Your task to perform on an android device: check android version Image 0: 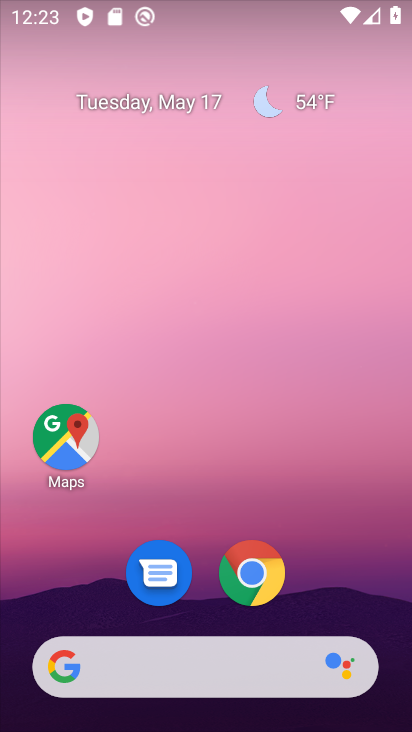
Step 0: press home button
Your task to perform on an android device: check android version Image 1: 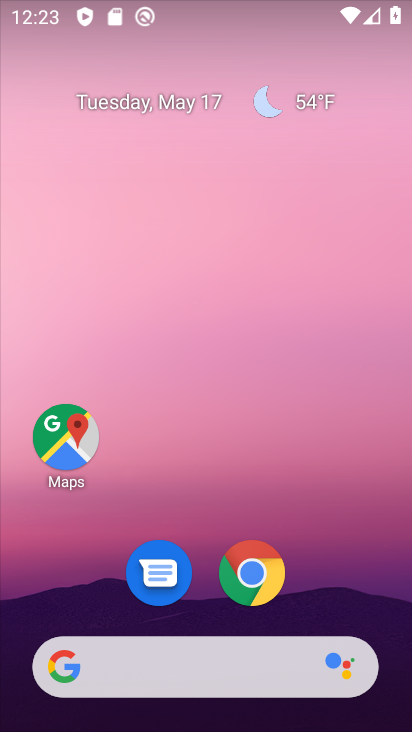
Step 1: drag from (206, 615) to (265, 1)
Your task to perform on an android device: check android version Image 2: 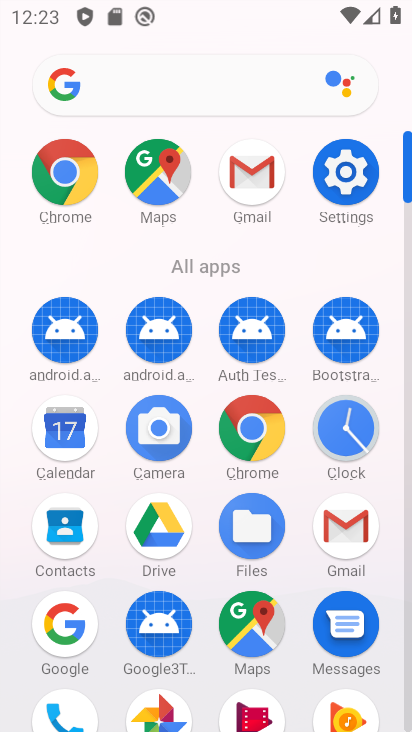
Step 2: click (344, 169)
Your task to perform on an android device: check android version Image 3: 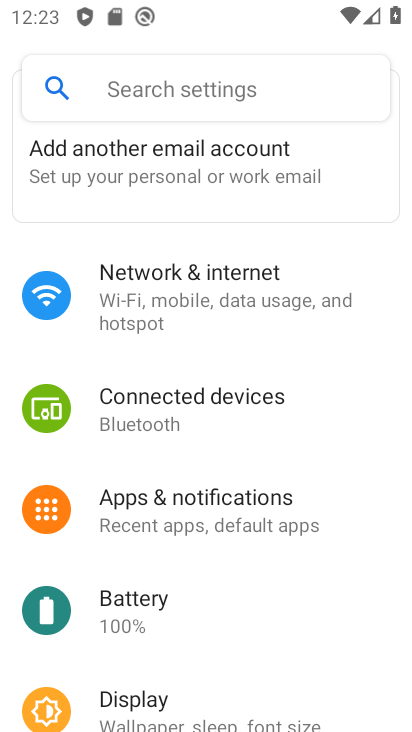
Step 3: drag from (209, 677) to (239, 83)
Your task to perform on an android device: check android version Image 4: 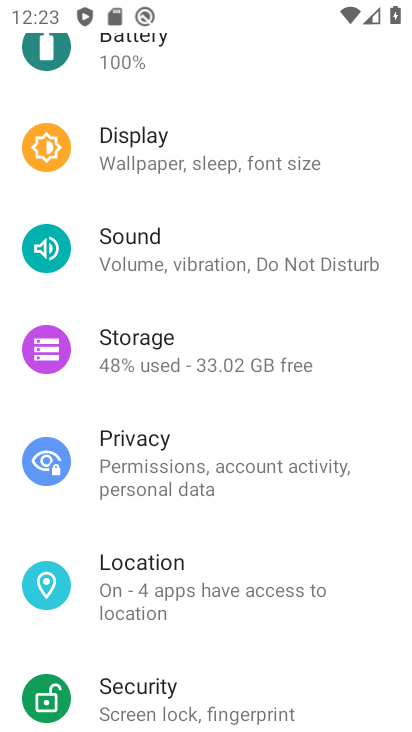
Step 4: drag from (210, 689) to (225, 68)
Your task to perform on an android device: check android version Image 5: 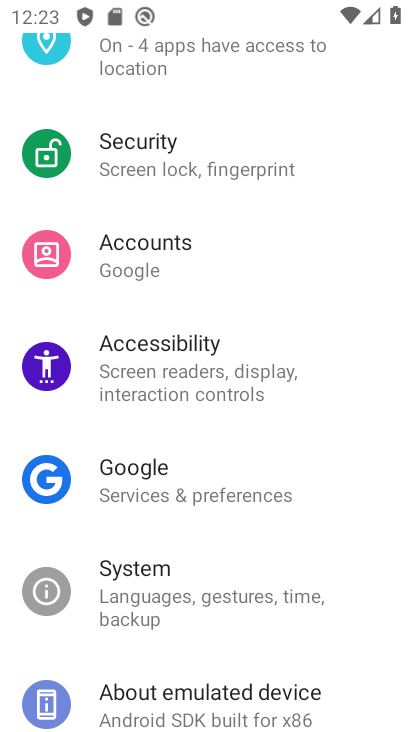
Step 5: drag from (193, 662) to (181, 76)
Your task to perform on an android device: check android version Image 6: 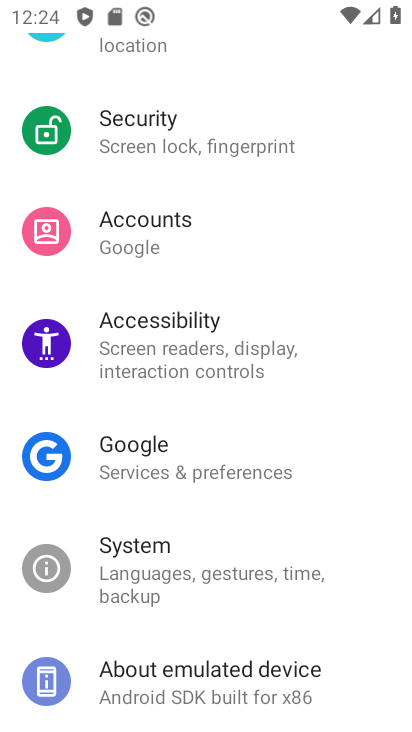
Step 6: click (223, 667)
Your task to perform on an android device: check android version Image 7: 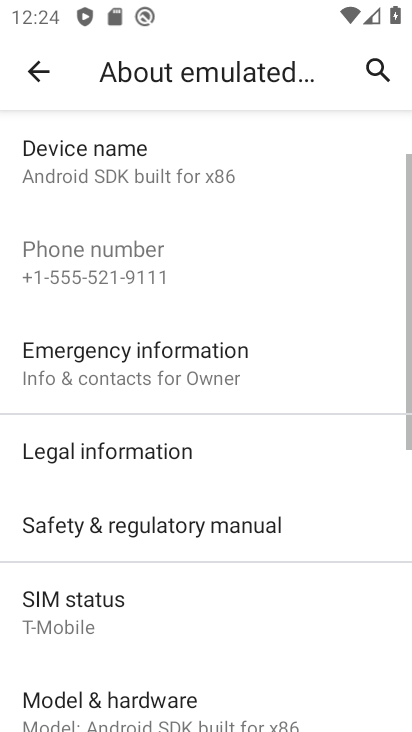
Step 7: drag from (244, 694) to (239, 276)
Your task to perform on an android device: check android version Image 8: 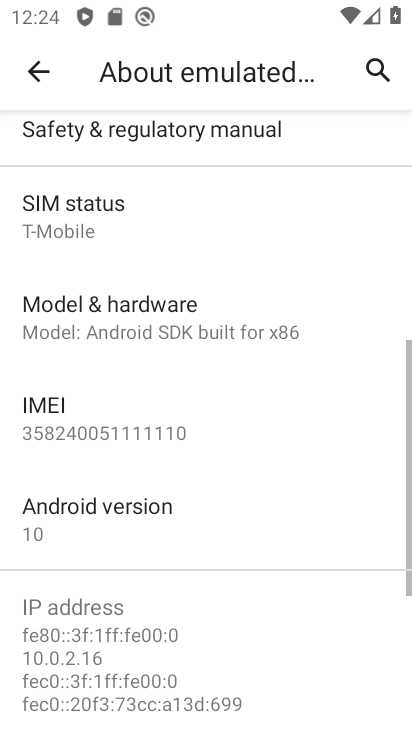
Step 8: click (80, 535)
Your task to perform on an android device: check android version Image 9: 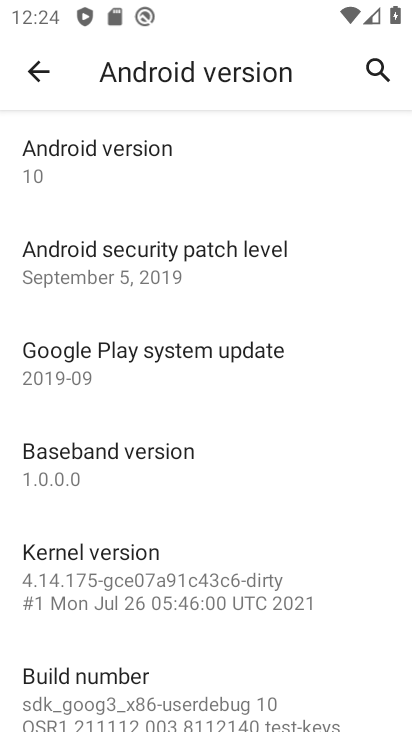
Step 9: drag from (222, 670) to (224, 276)
Your task to perform on an android device: check android version Image 10: 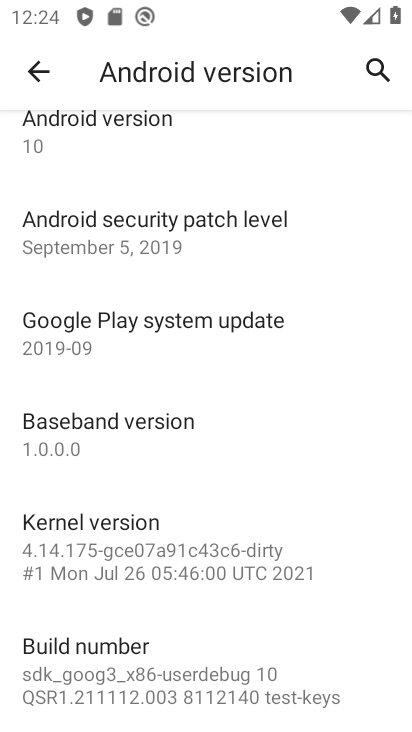
Step 10: click (130, 134)
Your task to perform on an android device: check android version Image 11: 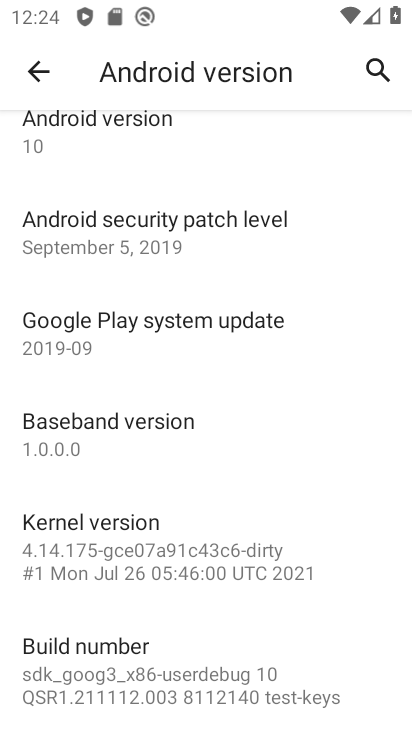
Step 11: task complete